Your task to perform on an android device: set the stopwatch Image 0: 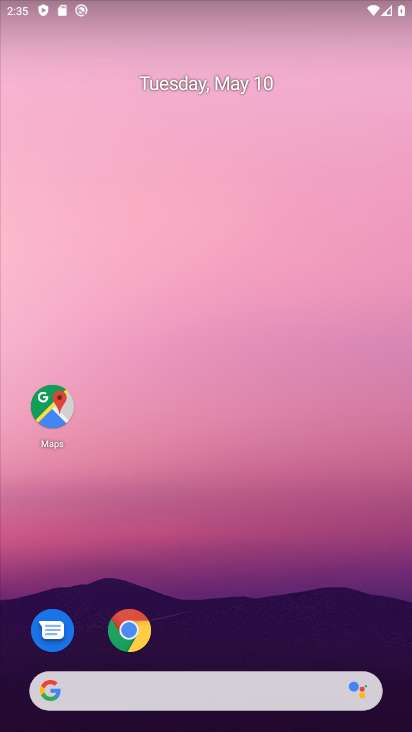
Step 0: drag from (274, 603) to (318, 101)
Your task to perform on an android device: set the stopwatch Image 1: 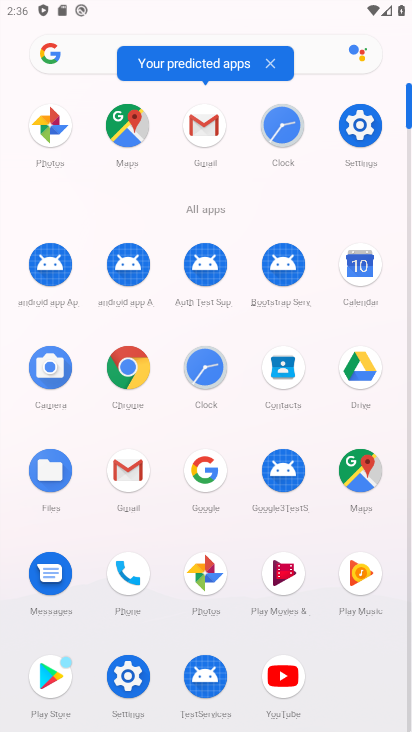
Step 1: click (283, 131)
Your task to perform on an android device: set the stopwatch Image 2: 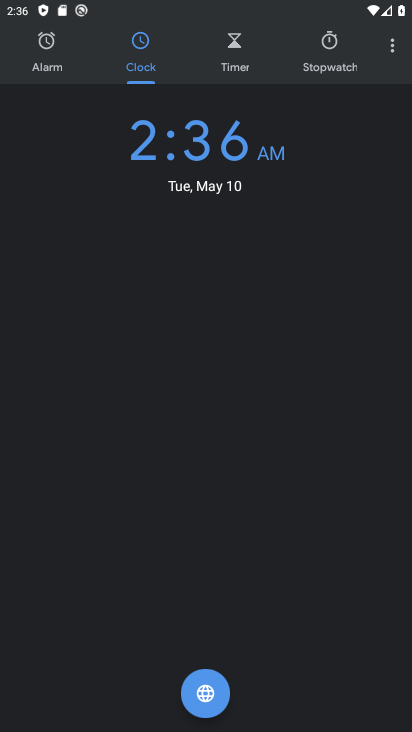
Step 2: click (334, 59)
Your task to perform on an android device: set the stopwatch Image 3: 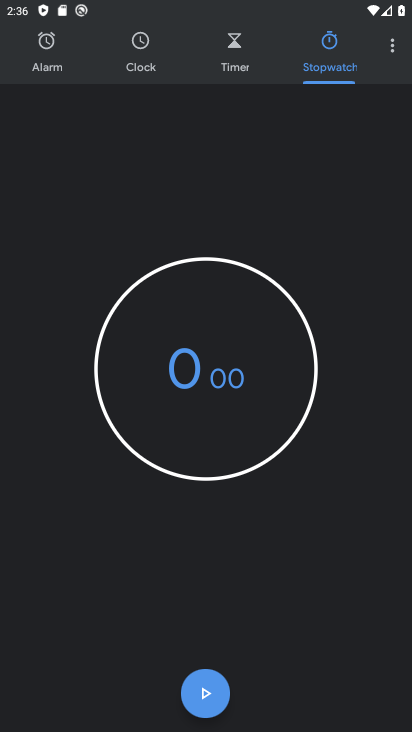
Step 3: click (212, 688)
Your task to perform on an android device: set the stopwatch Image 4: 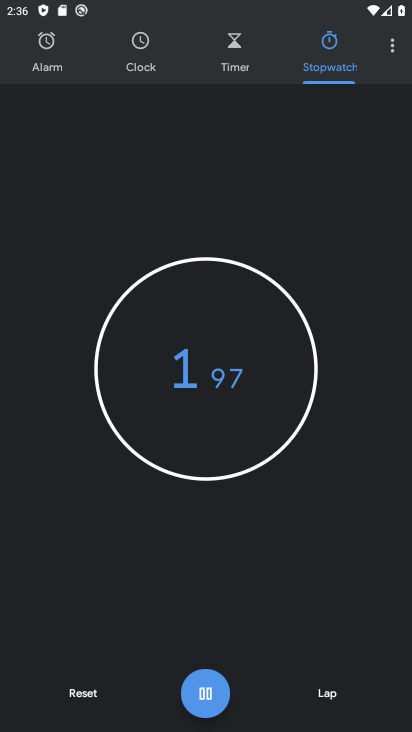
Step 4: task complete